Your task to perform on an android device: see sites visited before in the chrome app Image 0: 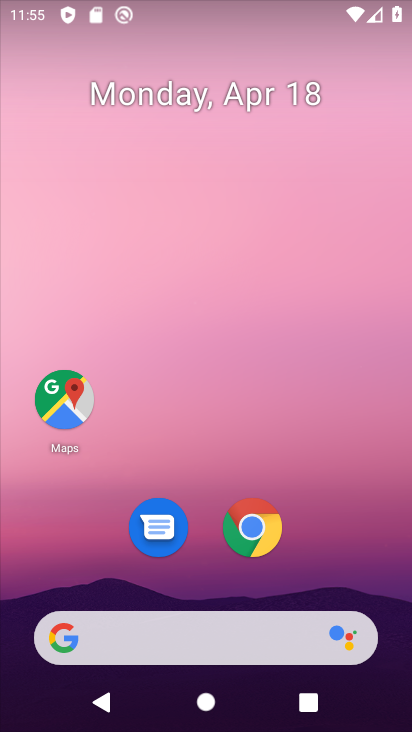
Step 0: click (267, 520)
Your task to perform on an android device: see sites visited before in the chrome app Image 1: 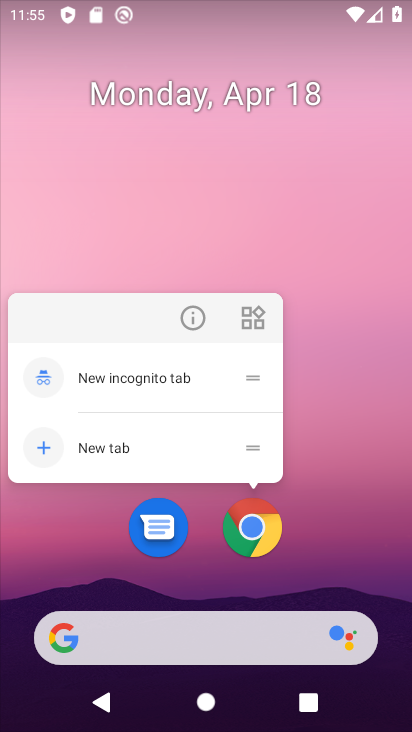
Step 1: click (262, 516)
Your task to perform on an android device: see sites visited before in the chrome app Image 2: 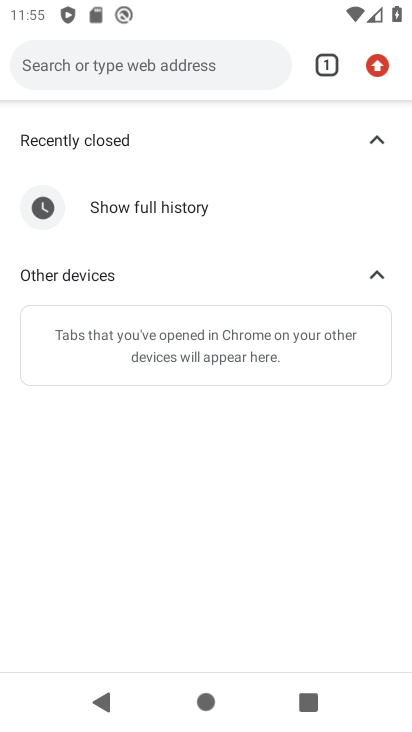
Step 2: click (387, 67)
Your task to perform on an android device: see sites visited before in the chrome app Image 3: 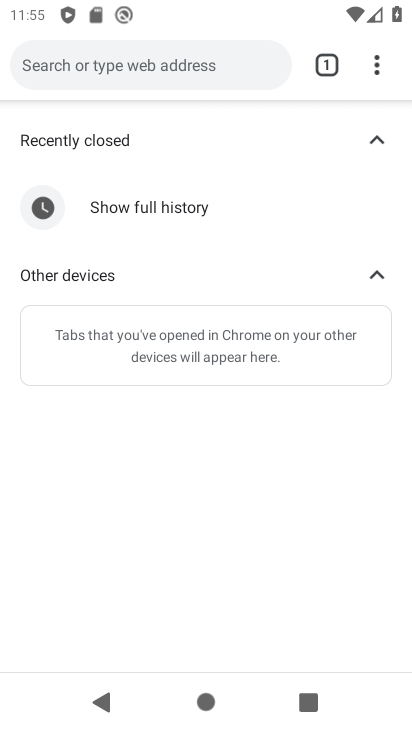
Step 3: click (372, 61)
Your task to perform on an android device: see sites visited before in the chrome app Image 4: 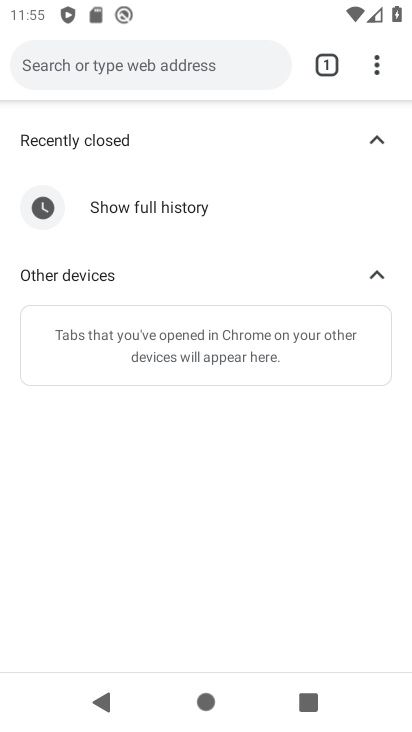
Step 4: click (368, 76)
Your task to perform on an android device: see sites visited before in the chrome app Image 5: 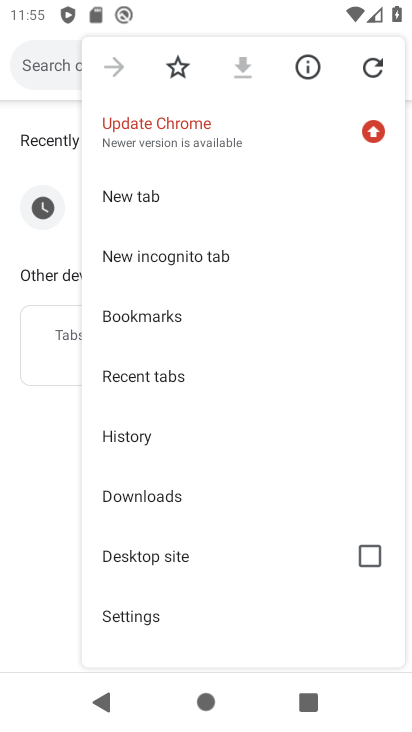
Step 5: click (181, 426)
Your task to perform on an android device: see sites visited before in the chrome app Image 6: 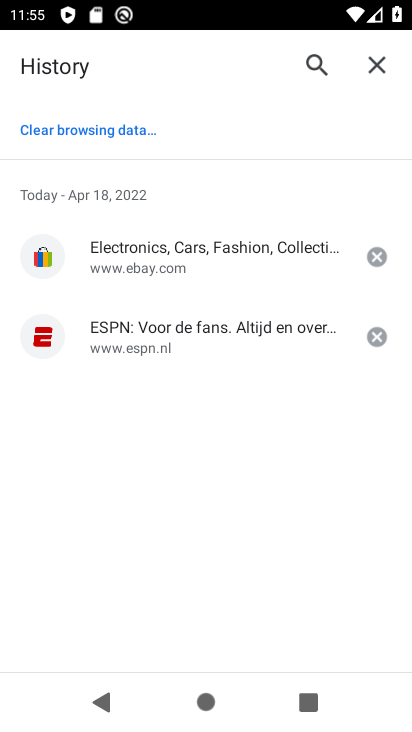
Step 6: task complete